Your task to perform on an android device: check google app version Image 0: 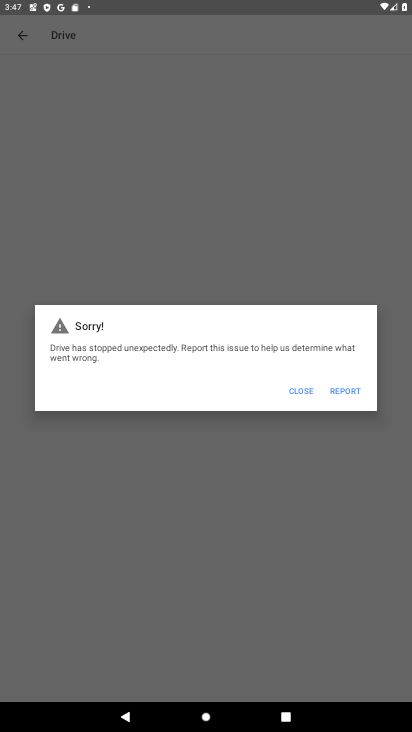
Step 0: press home button
Your task to perform on an android device: check google app version Image 1: 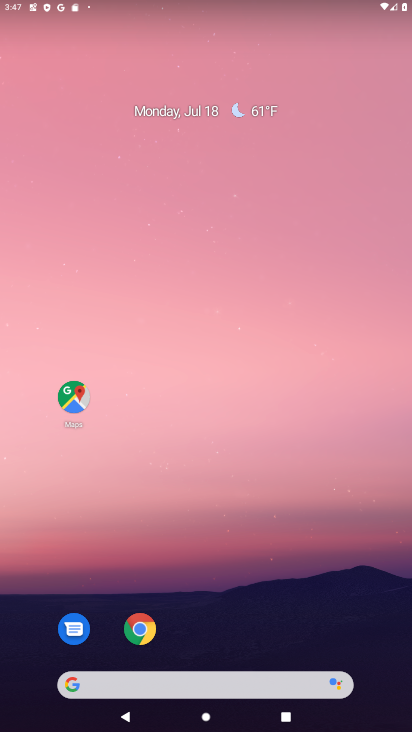
Step 1: drag from (151, 671) to (151, 275)
Your task to perform on an android device: check google app version Image 2: 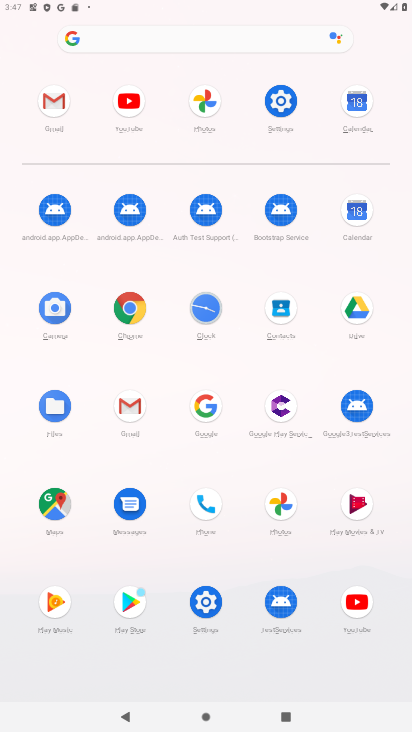
Step 2: click (206, 406)
Your task to perform on an android device: check google app version Image 3: 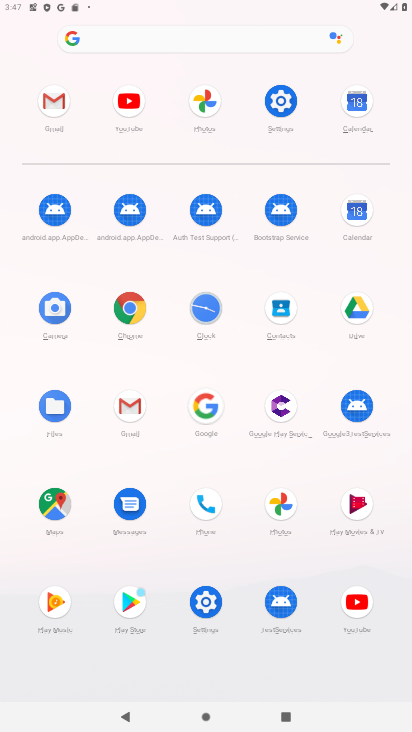
Step 3: click (206, 406)
Your task to perform on an android device: check google app version Image 4: 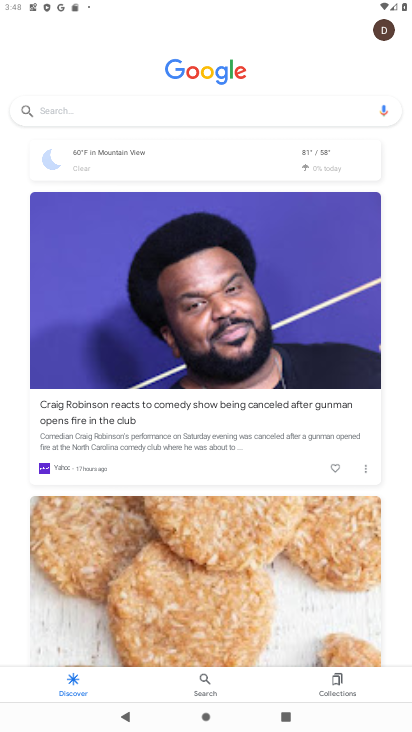
Step 4: click (379, 34)
Your task to perform on an android device: check google app version Image 5: 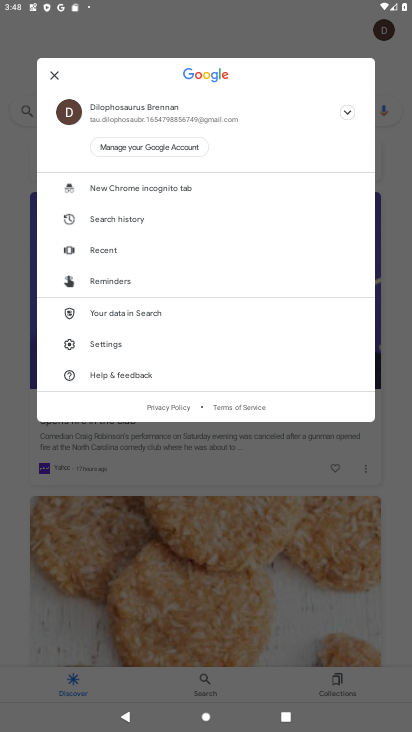
Step 5: click (99, 345)
Your task to perform on an android device: check google app version Image 6: 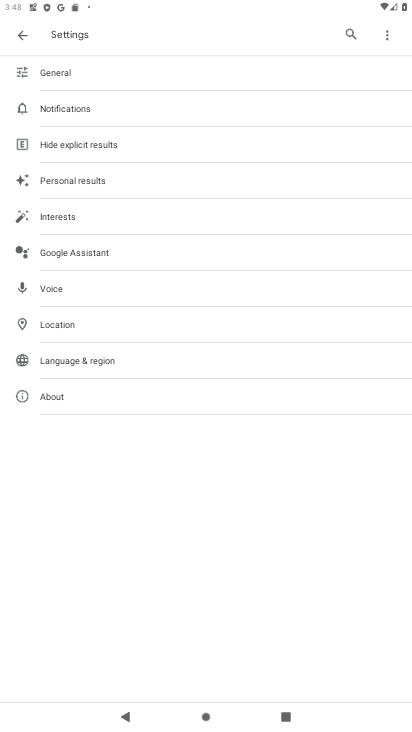
Step 6: task complete